Your task to perform on an android device: add a label to a message in the gmail app Image 0: 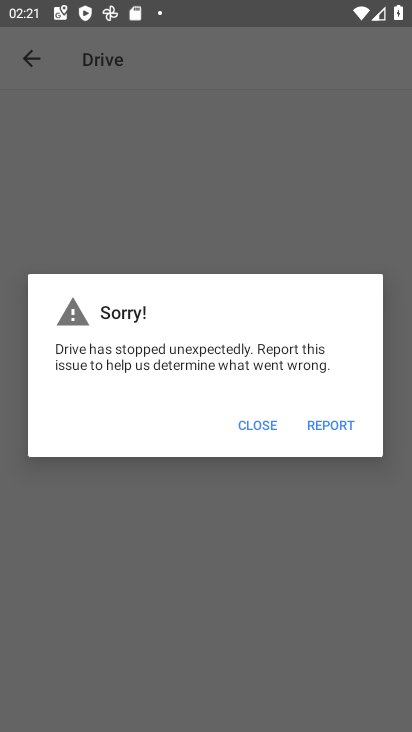
Step 0: press home button
Your task to perform on an android device: add a label to a message in the gmail app Image 1: 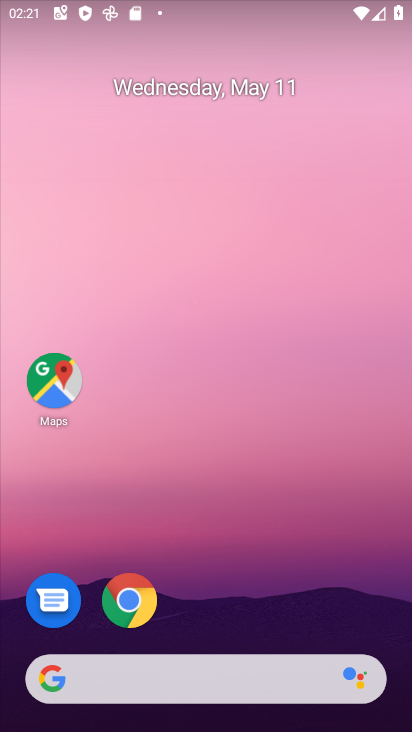
Step 1: drag from (220, 723) to (235, 99)
Your task to perform on an android device: add a label to a message in the gmail app Image 2: 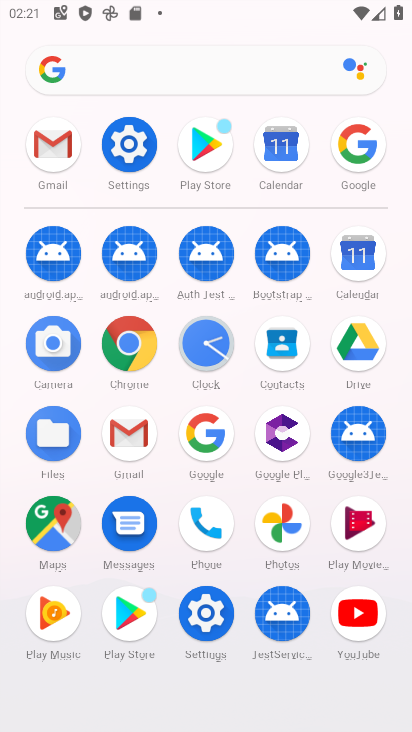
Step 2: click (56, 152)
Your task to perform on an android device: add a label to a message in the gmail app Image 3: 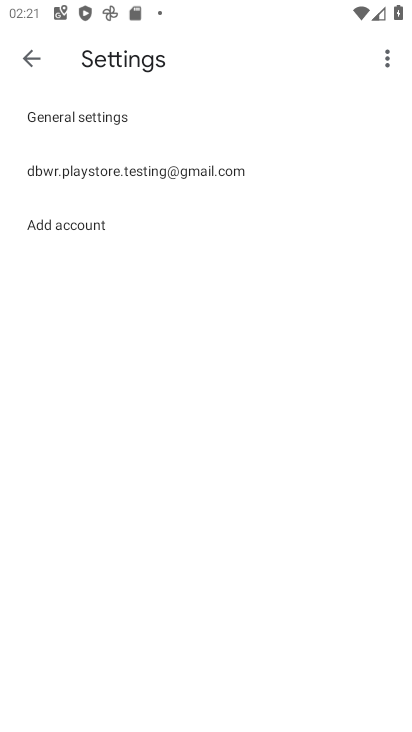
Step 3: click (27, 53)
Your task to perform on an android device: add a label to a message in the gmail app Image 4: 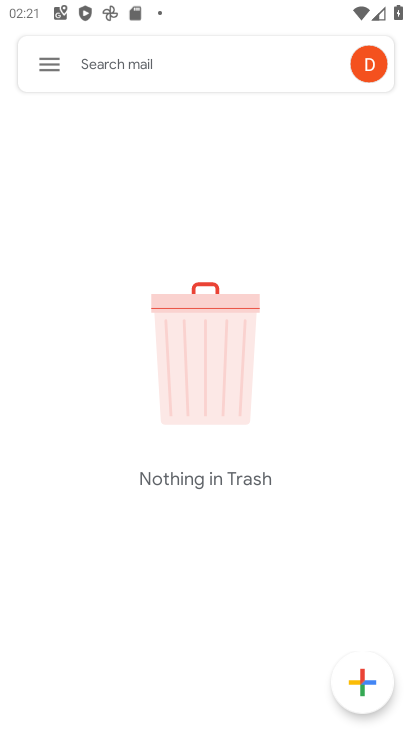
Step 4: click (38, 69)
Your task to perform on an android device: add a label to a message in the gmail app Image 5: 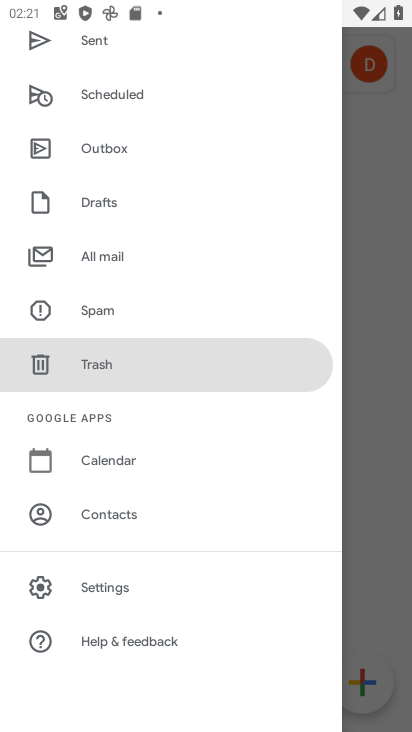
Step 5: click (134, 245)
Your task to perform on an android device: add a label to a message in the gmail app Image 6: 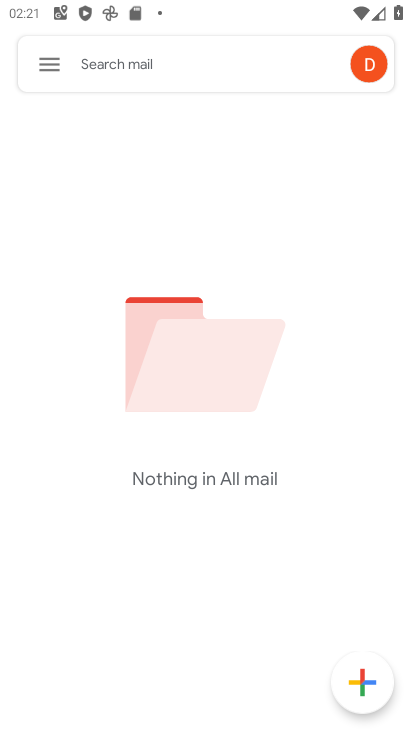
Step 6: task complete